Your task to perform on an android device: set the stopwatch Image 0: 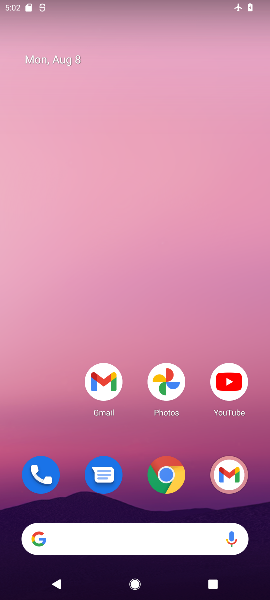
Step 0: press home button
Your task to perform on an android device: set the stopwatch Image 1: 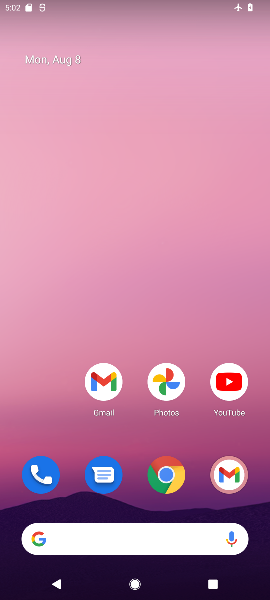
Step 1: drag from (59, 437) to (59, 157)
Your task to perform on an android device: set the stopwatch Image 2: 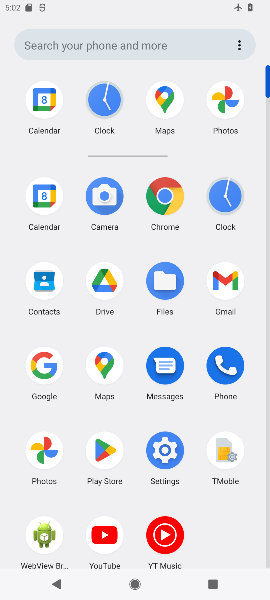
Step 2: click (227, 196)
Your task to perform on an android device: set the stopwatch Image 3: 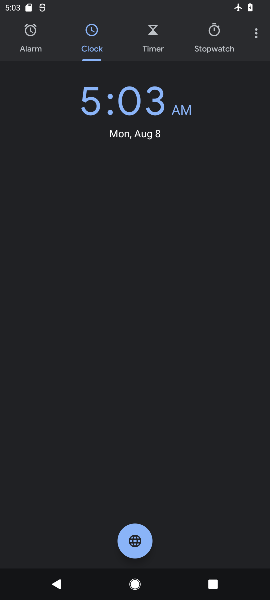
Step 3: click (217, 37)
Your task to perform on an android device: set the stopwatch Image 4: 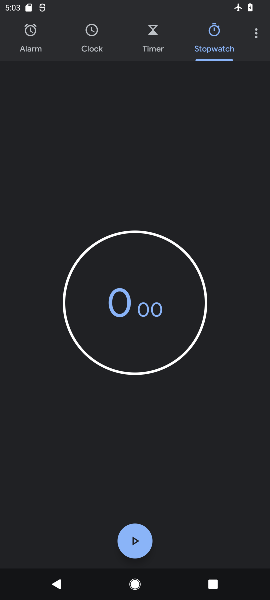
Step 4: click (142, 539)
Your task to perform on an android device: set the stopwatch Image 5: 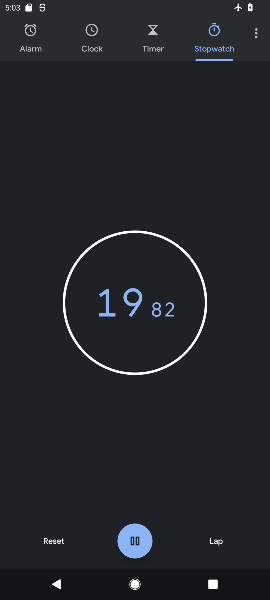
Step 5: task complete